Your task to perform on an android device: open a new tab in the chrome app Image 0: 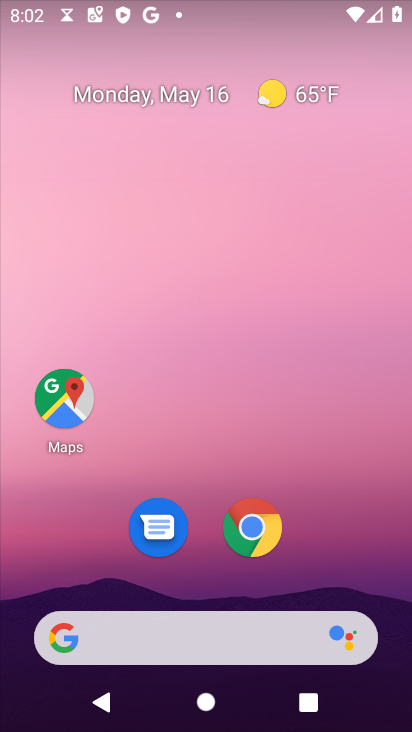
Step 0: drag from (312, 573) to (309, 158)
Your task to perform on an android device: open a new tab in the chrome app Image 1: 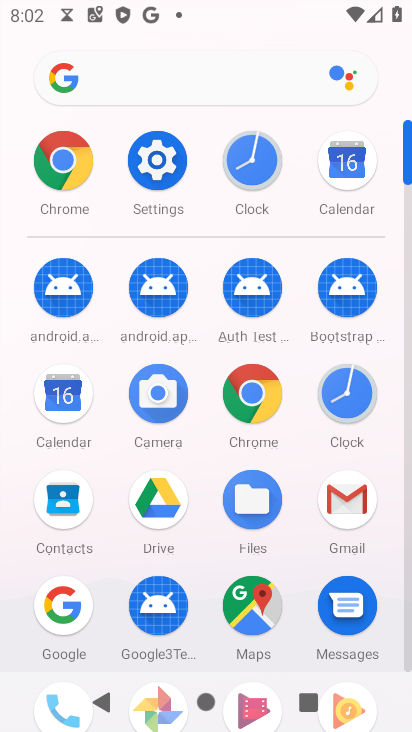
Step 1: click (59, 154)
Your task to perform on an android device: open a new tab in the chrome app Image 2: 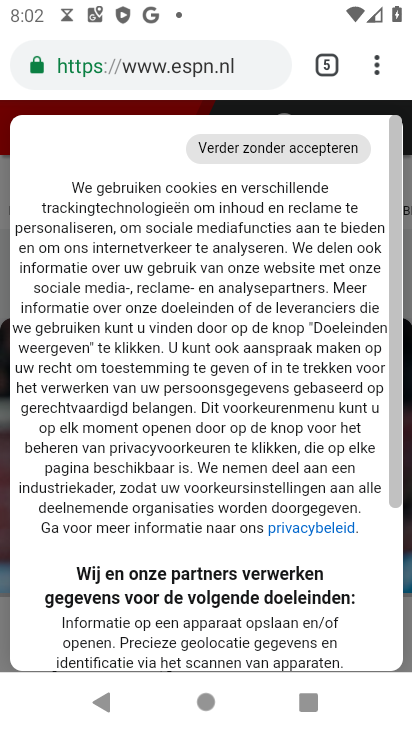
Step 2: click (370, 68)
Your task to perform on an android device: open a new tab in the chrome app Image 3: 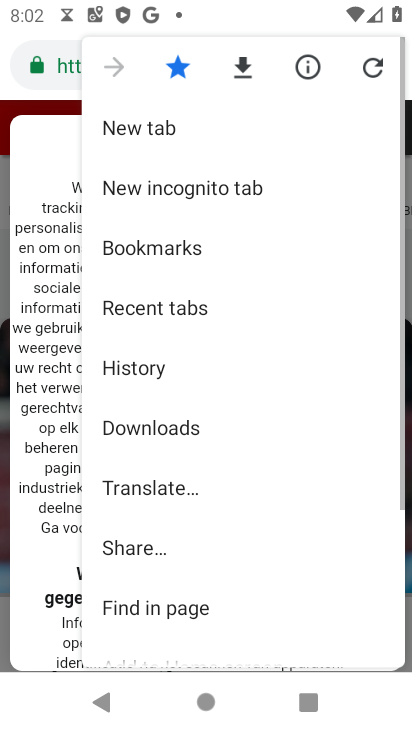
Step 3: click (173, 124)
Your task to perform on an android device: open a new tab in the chrome app Image 4: 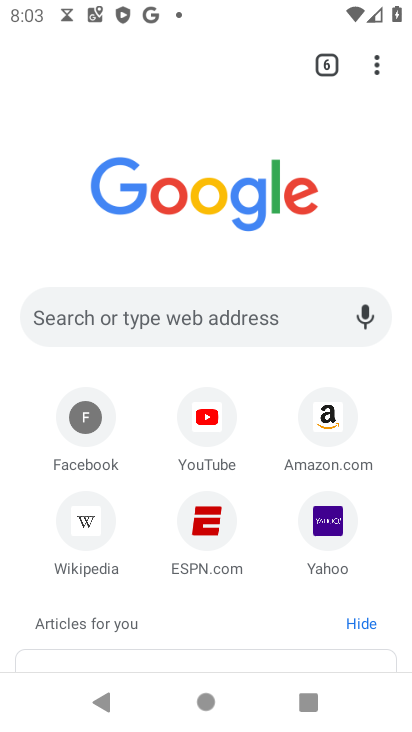
Step 4: task complete